Your task to perform on an android device: Add corsair k70 to the cart on amazon Image 0: 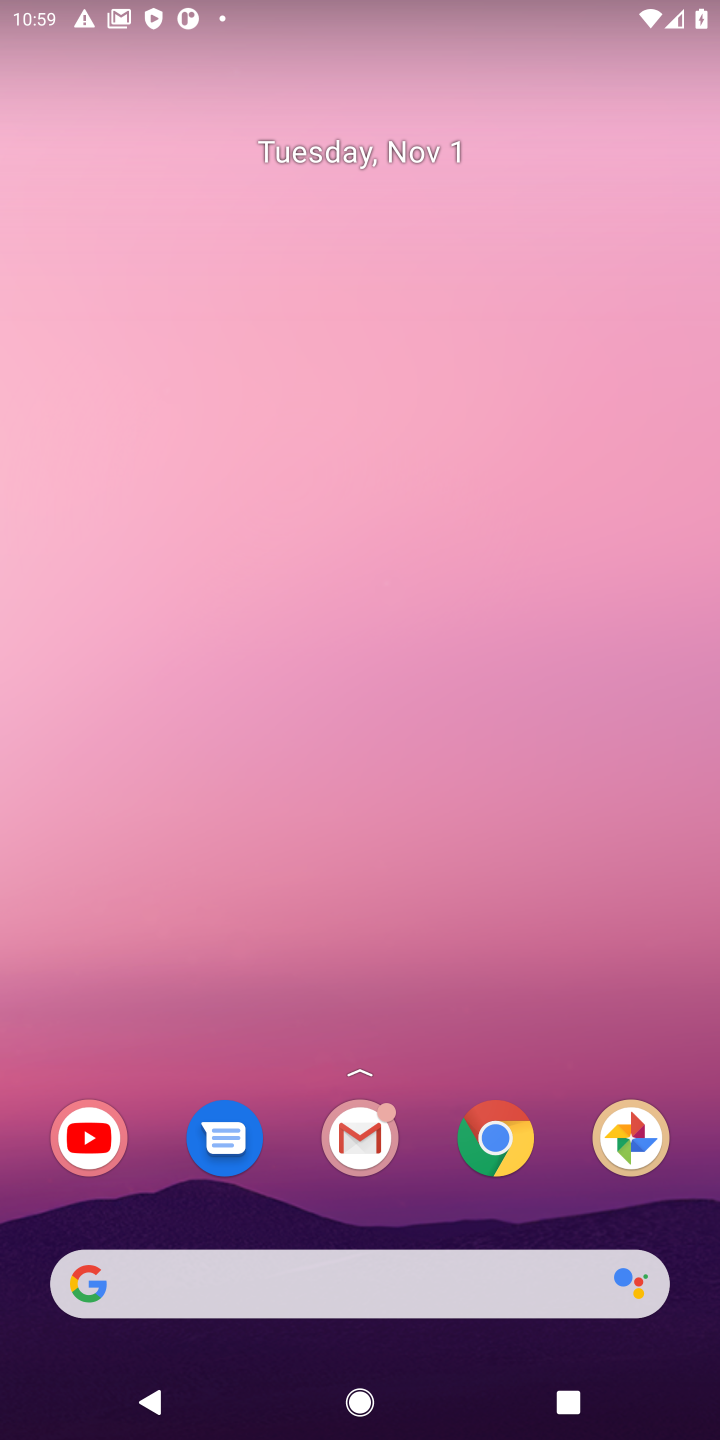
Step 0: click (504, 1146)
Your task to perform on an android device: Add corsair k70 to the cart on amazon Image 1: 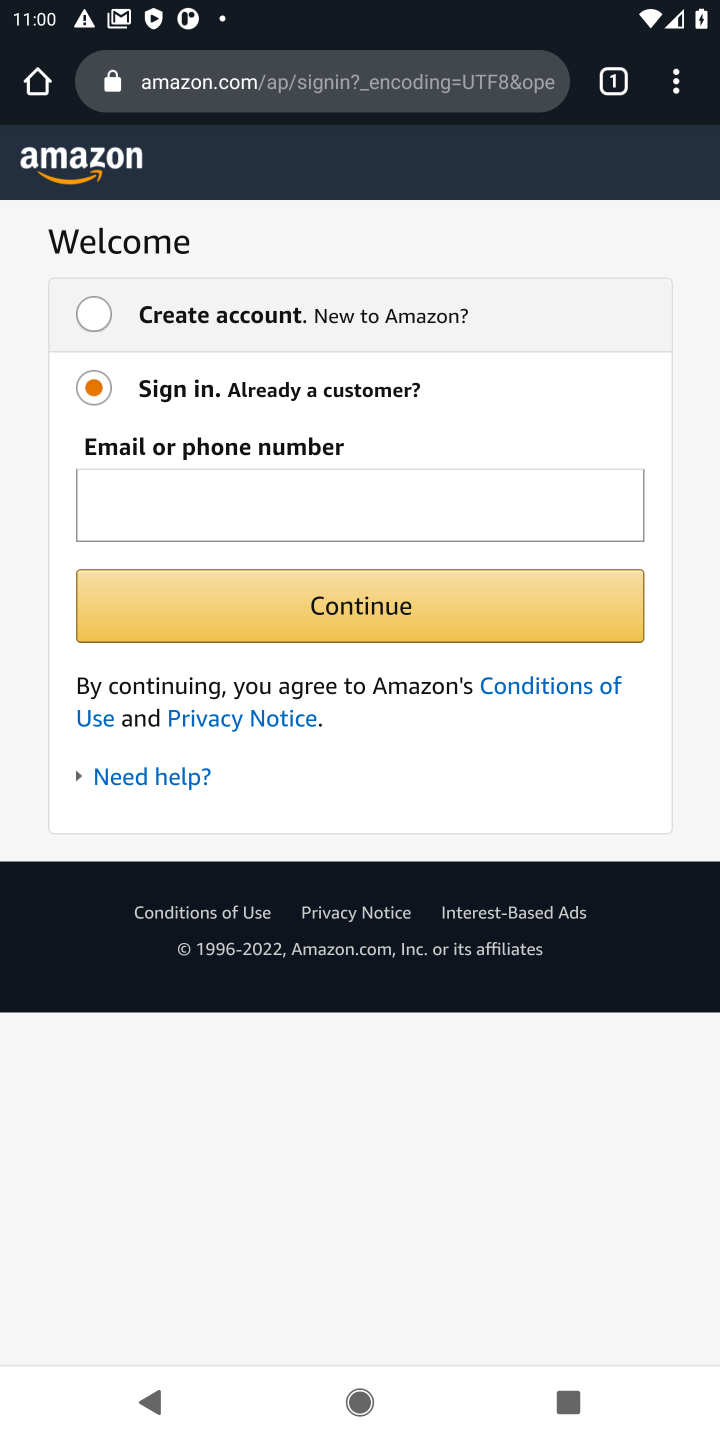
Step 1: click (297, 89)
Your task to perform on an android device: Add corsair k70 to the cart on amazon Image 2: 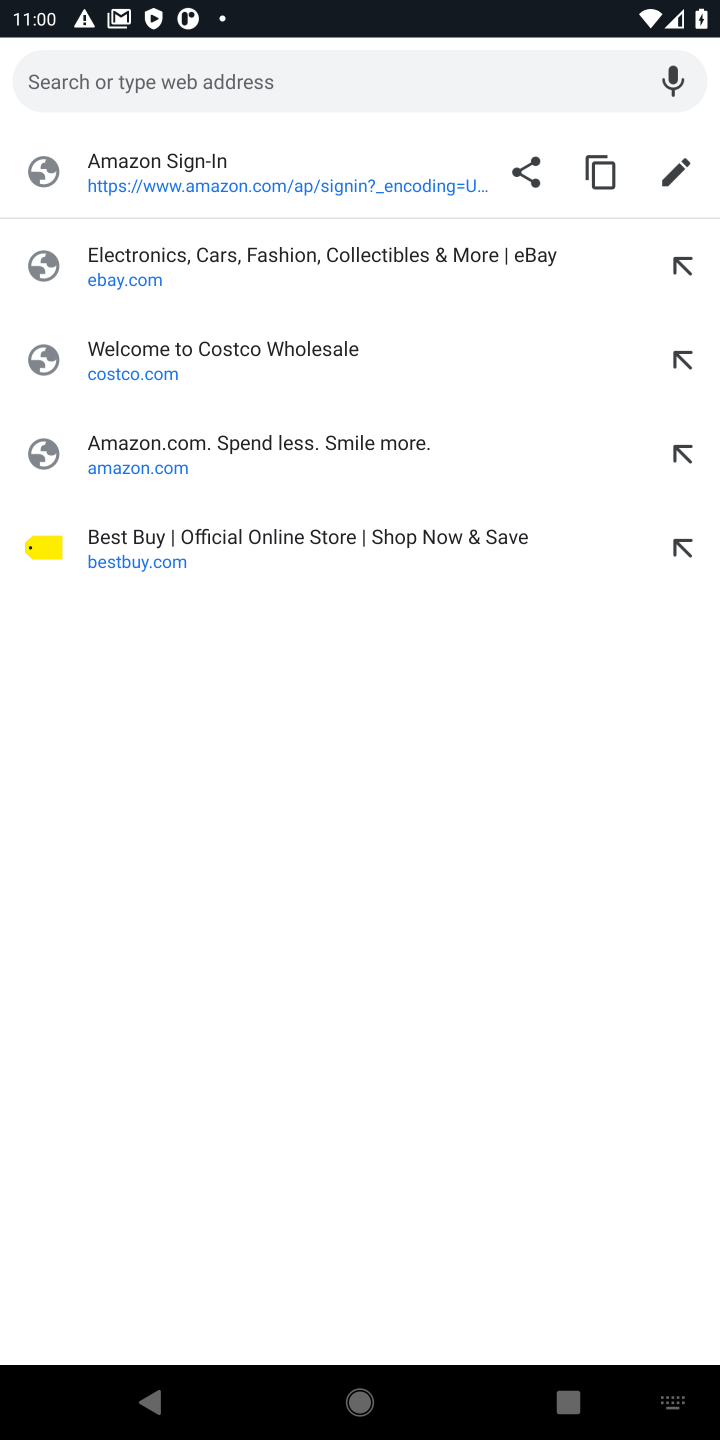
Step 2: click (144, 436)
Your task to perform on an android device: Add corsair k70 to the cart on amazon Image 3: 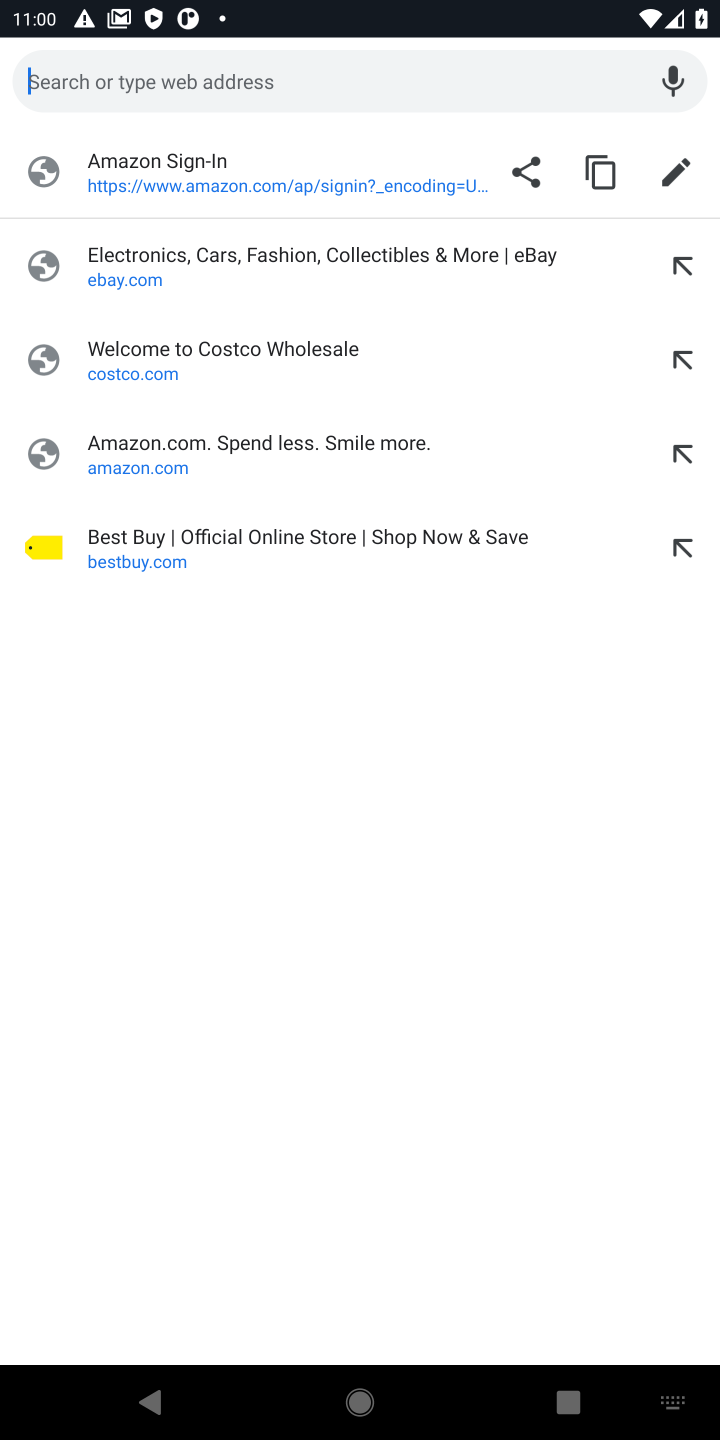
Step 3: click (122, 466)
Your task to perform on an android device: Add corsair k70 to the cart on amazon Image 4: 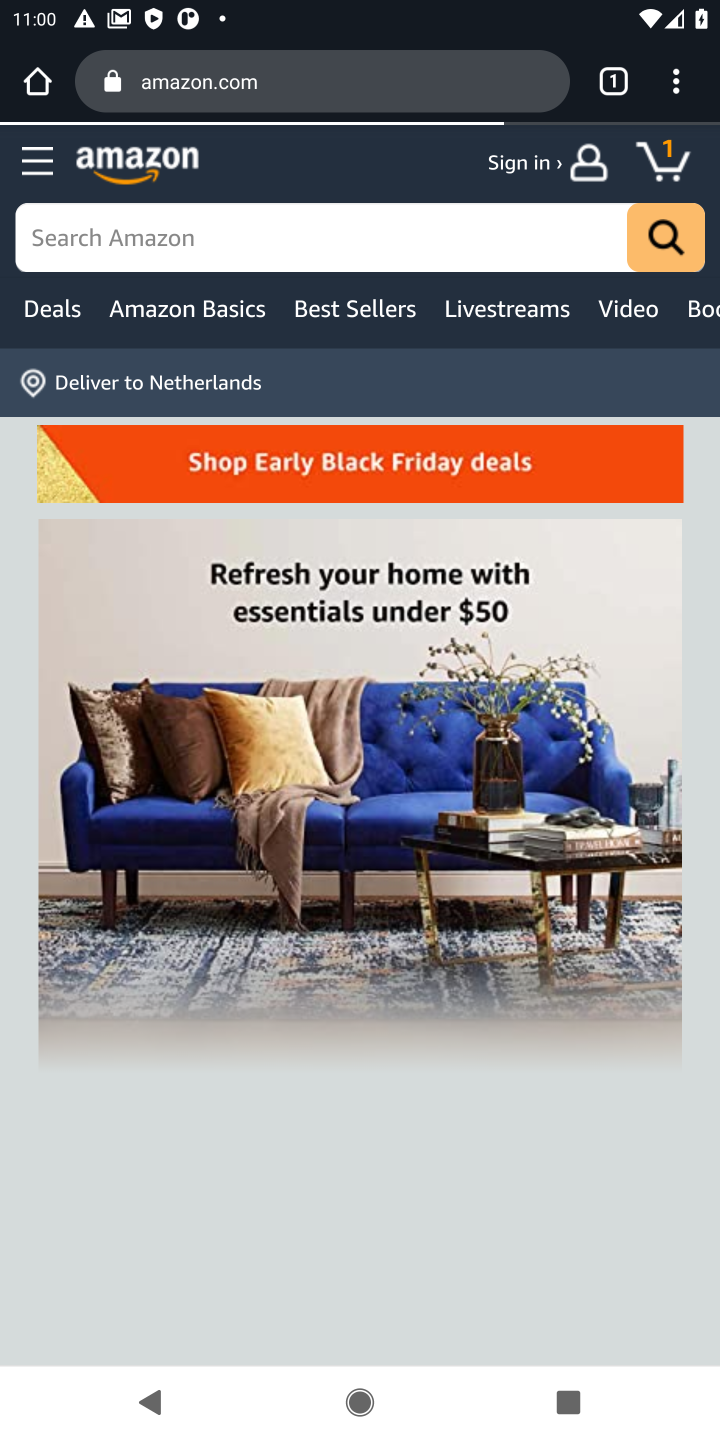
Step 4: click (87, 447)
Your task to perform on an android device: Add corsair k70 to the cart on amazon Image 5: 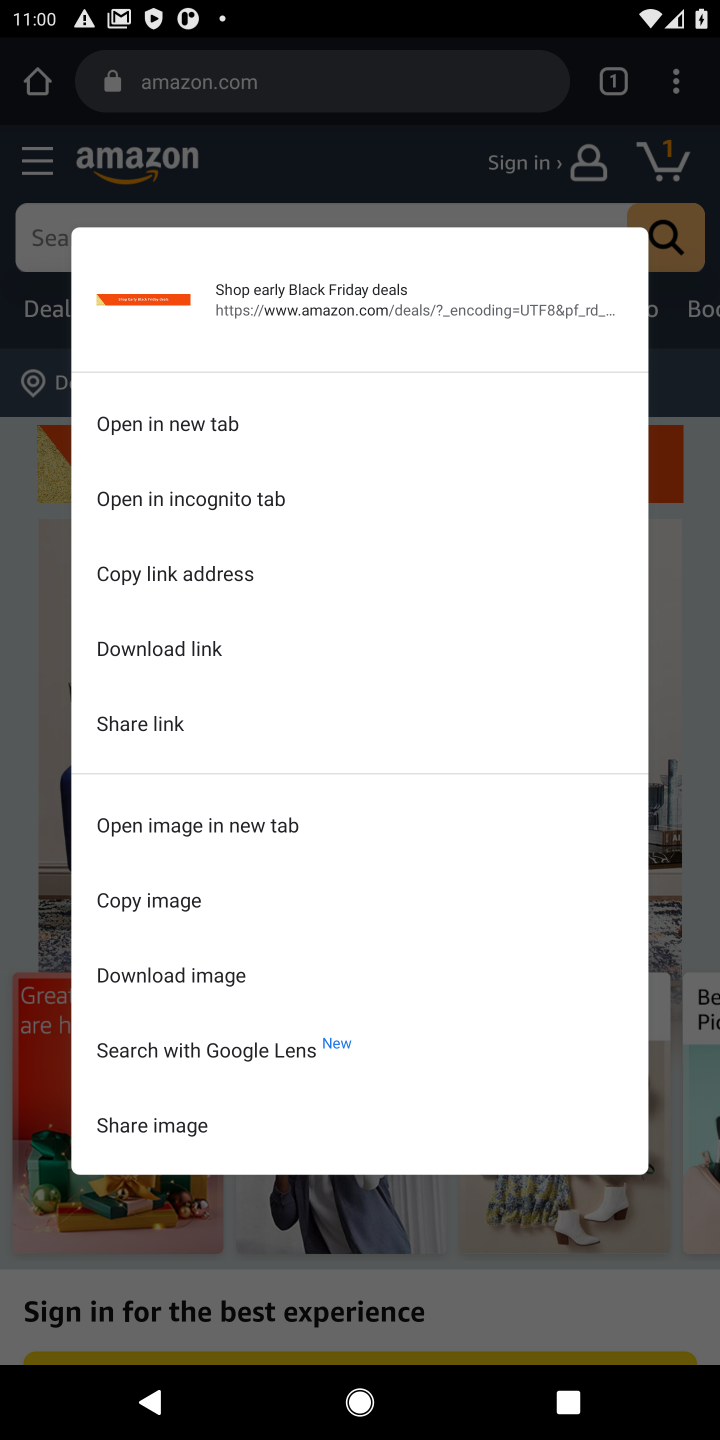
Step 5: click (63, 232)
Your task to perform on an android device: Add corsair k70 to the cart on amazon Image 6: 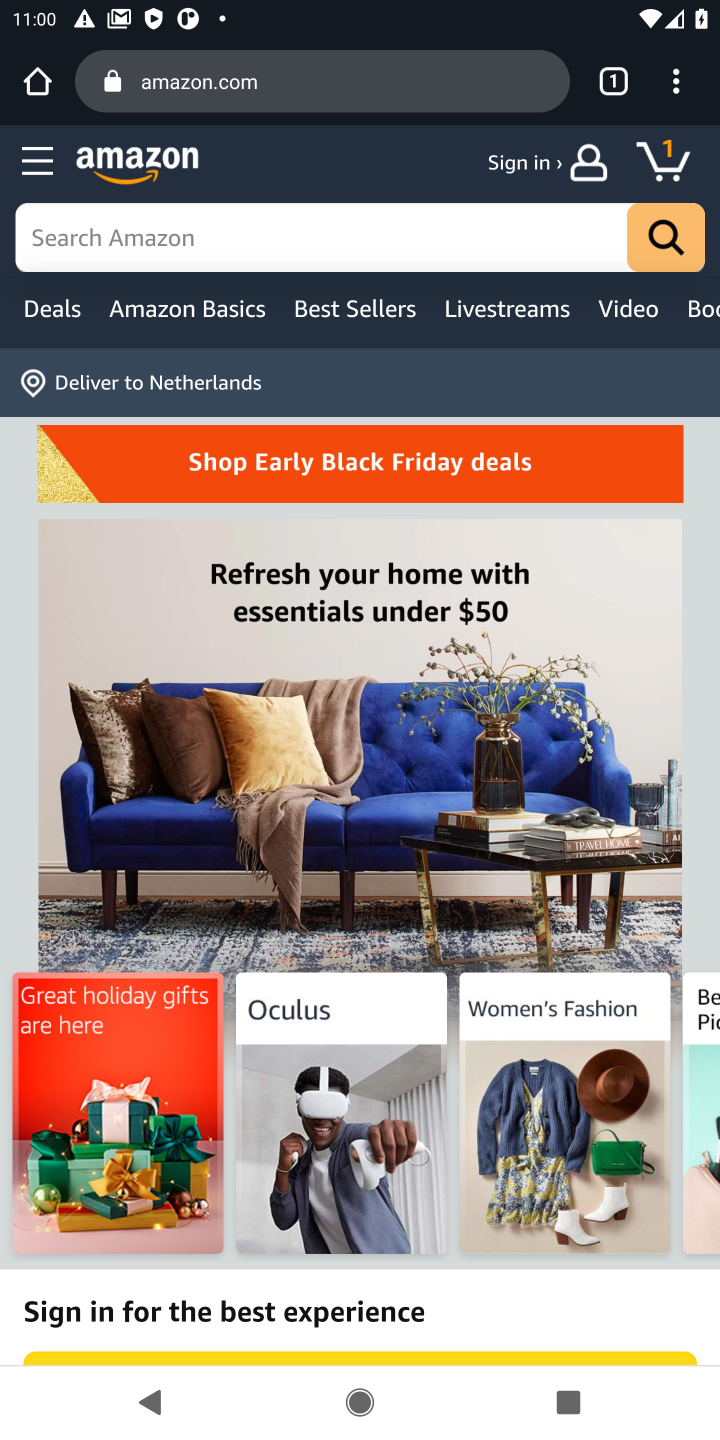
Step 6: click (66, 237)
Your task to perform on an android device: Add corsair k70 to the cart on amazon Image 7: 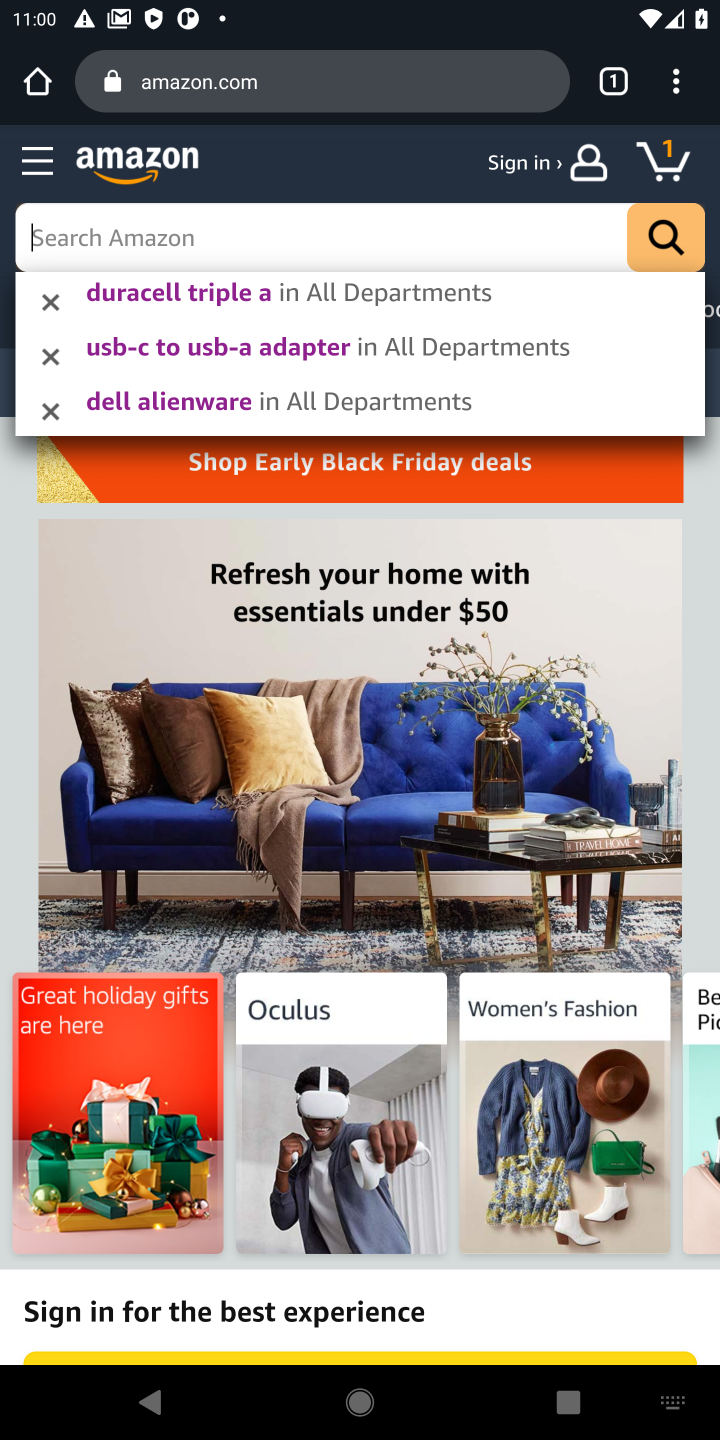
Step 7: type "corsair k70"
Your task to perform on an android device: Add corsair k70 to the cart on amazon Image 8: 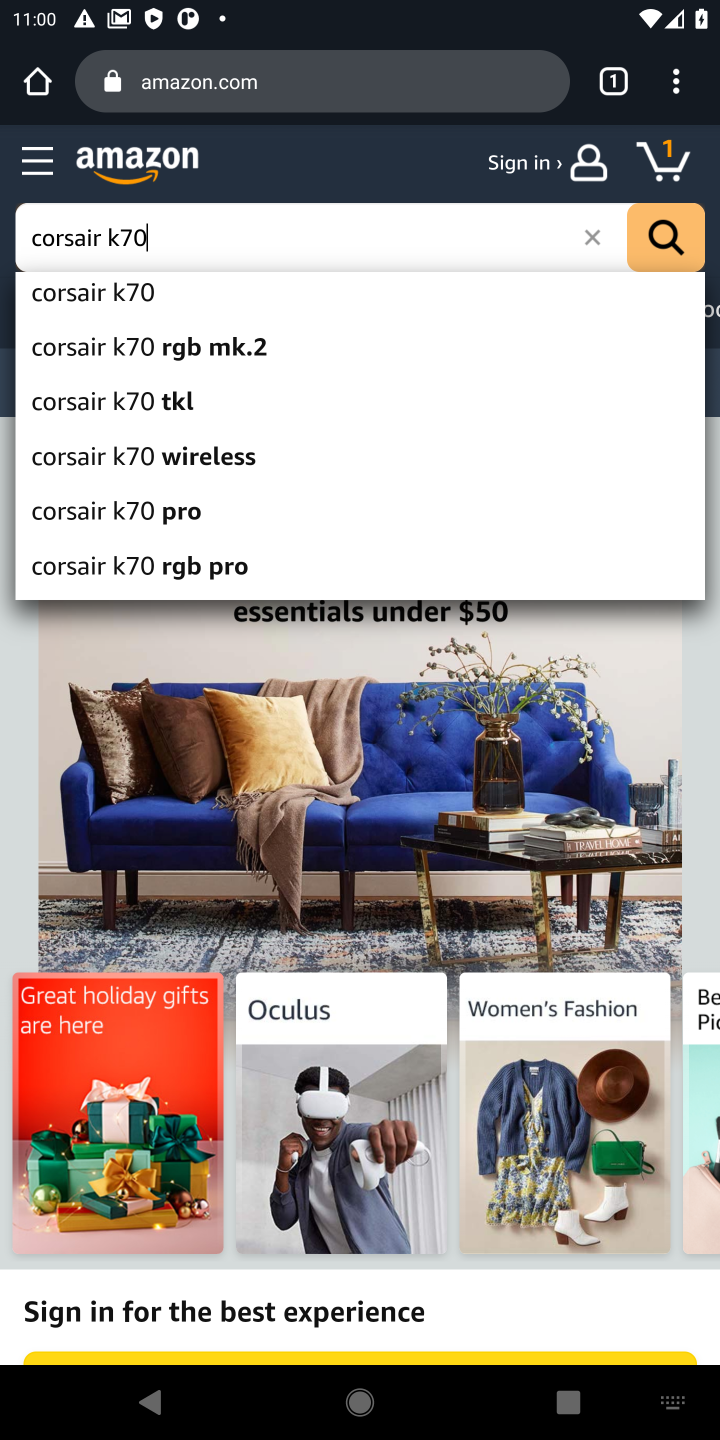
Step 8: click (60, 295)
Your task to perform on an android device: Add corsair k70 to the cart on amazon Image 9: 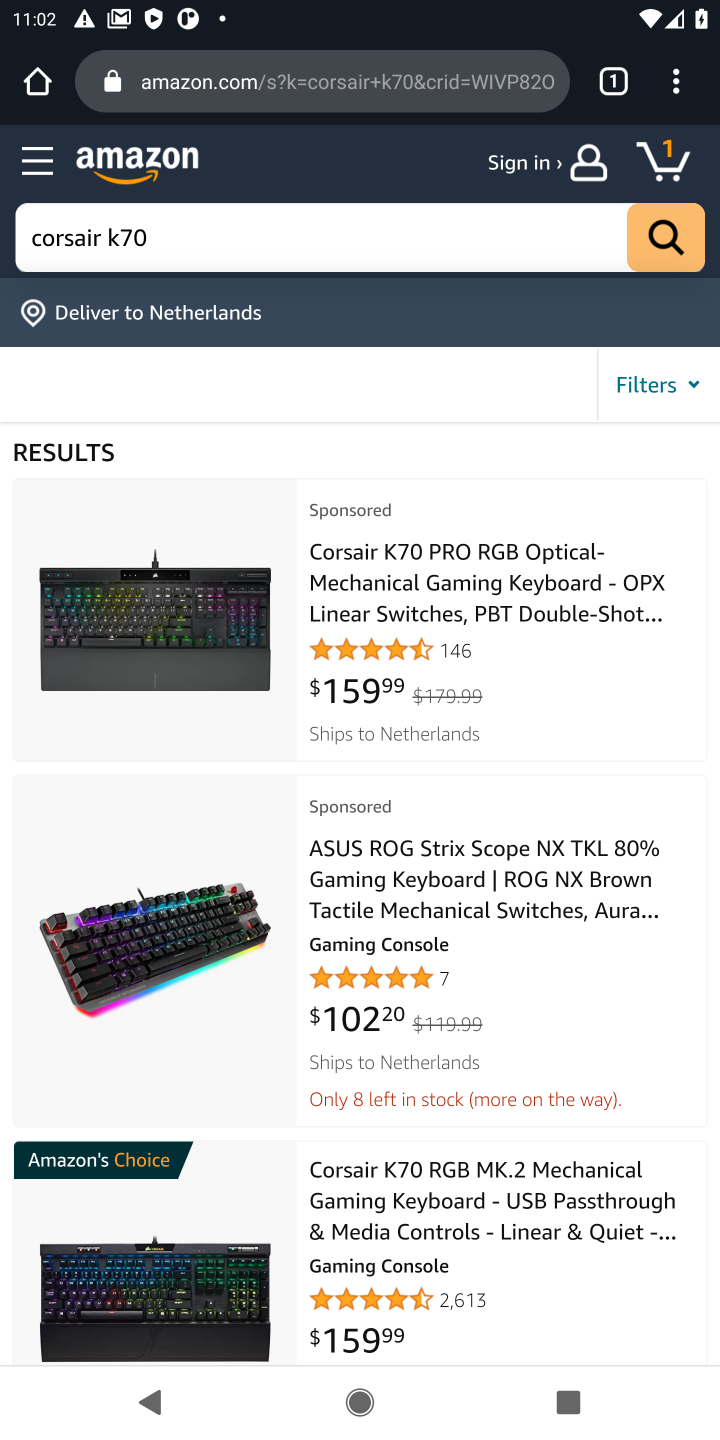
Step 9: click (301, 624)
Your task to perform on an android device: Add corsair k70 to the cart on amazon Image 10: 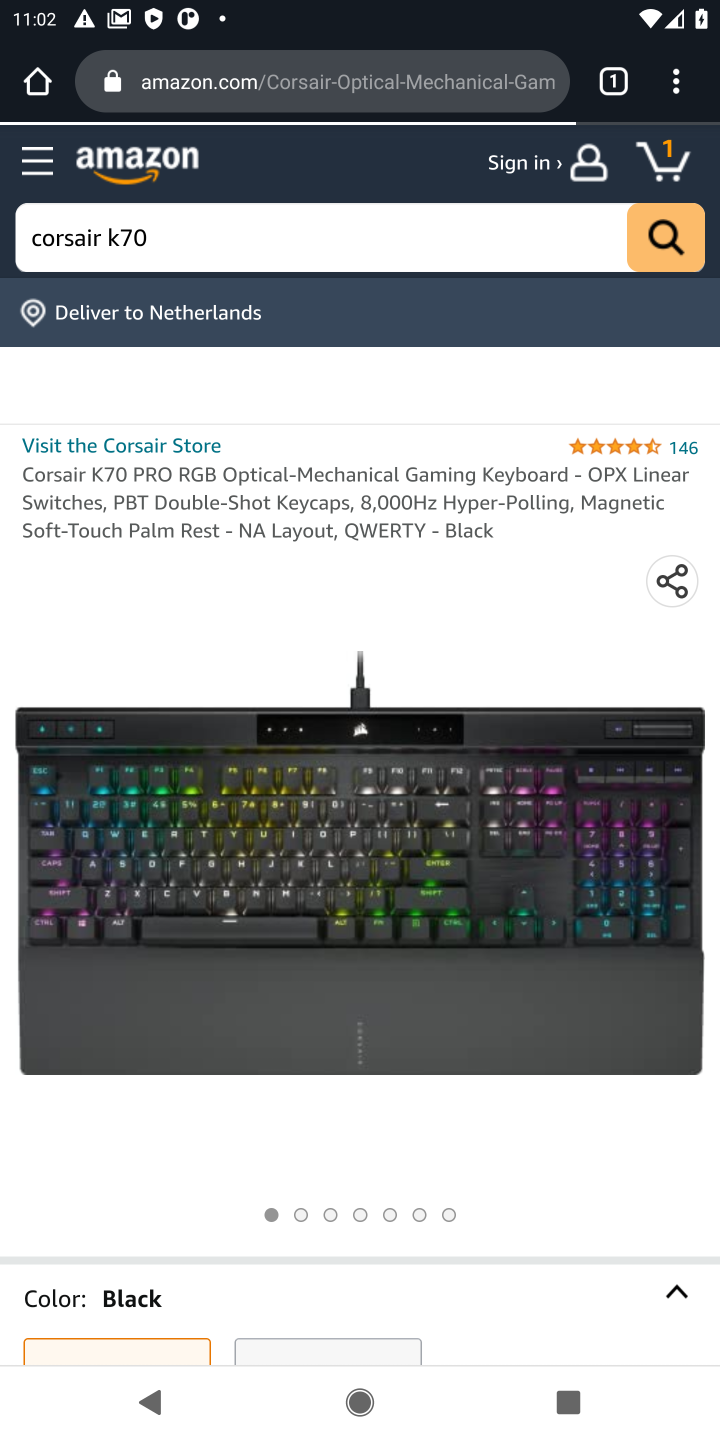
Step 10: drag from (313, 874) to (352, 202)
Your task to perform on an android device: Add corsair k70 to the cart on amazon Image 11: 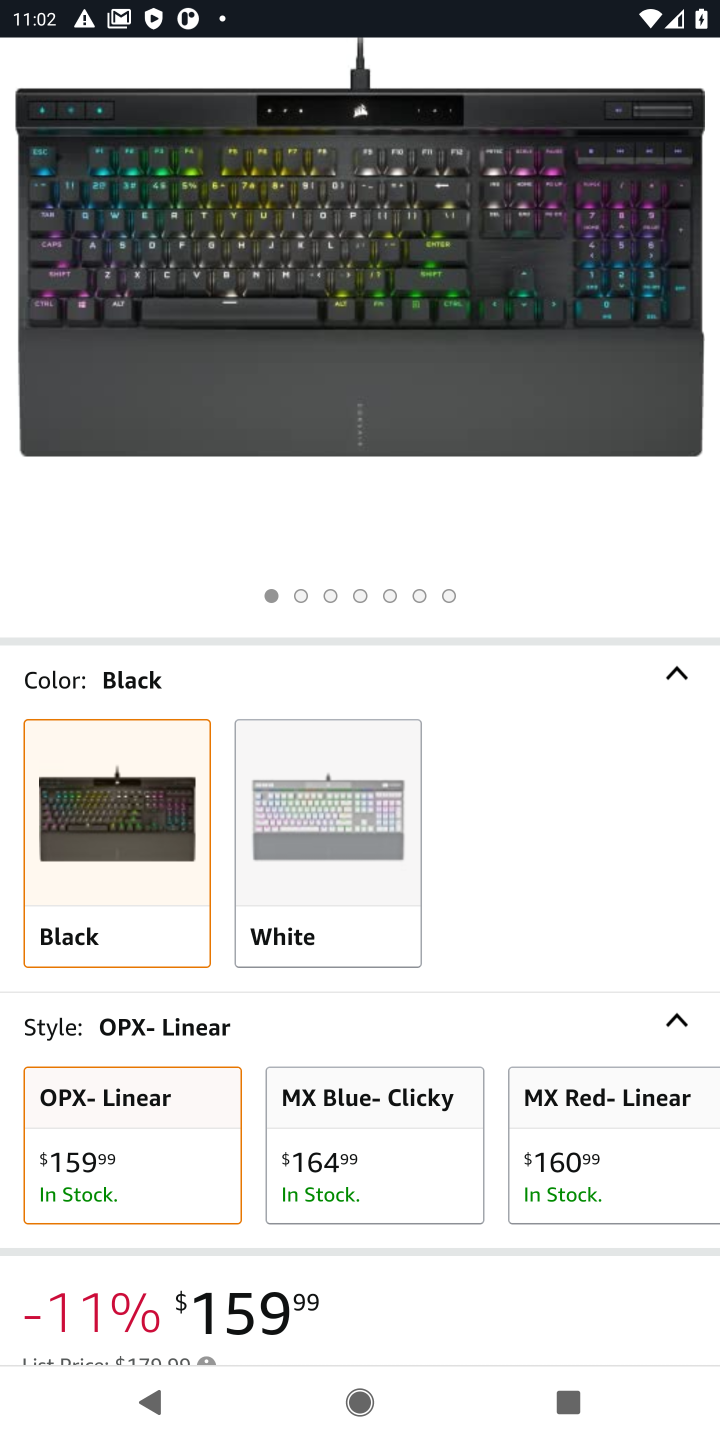
Step 11: drag from (476, 926) to (463, 316)
Your task to perform on an android device: Add corsair k70 to the cart on amazon Image 12: 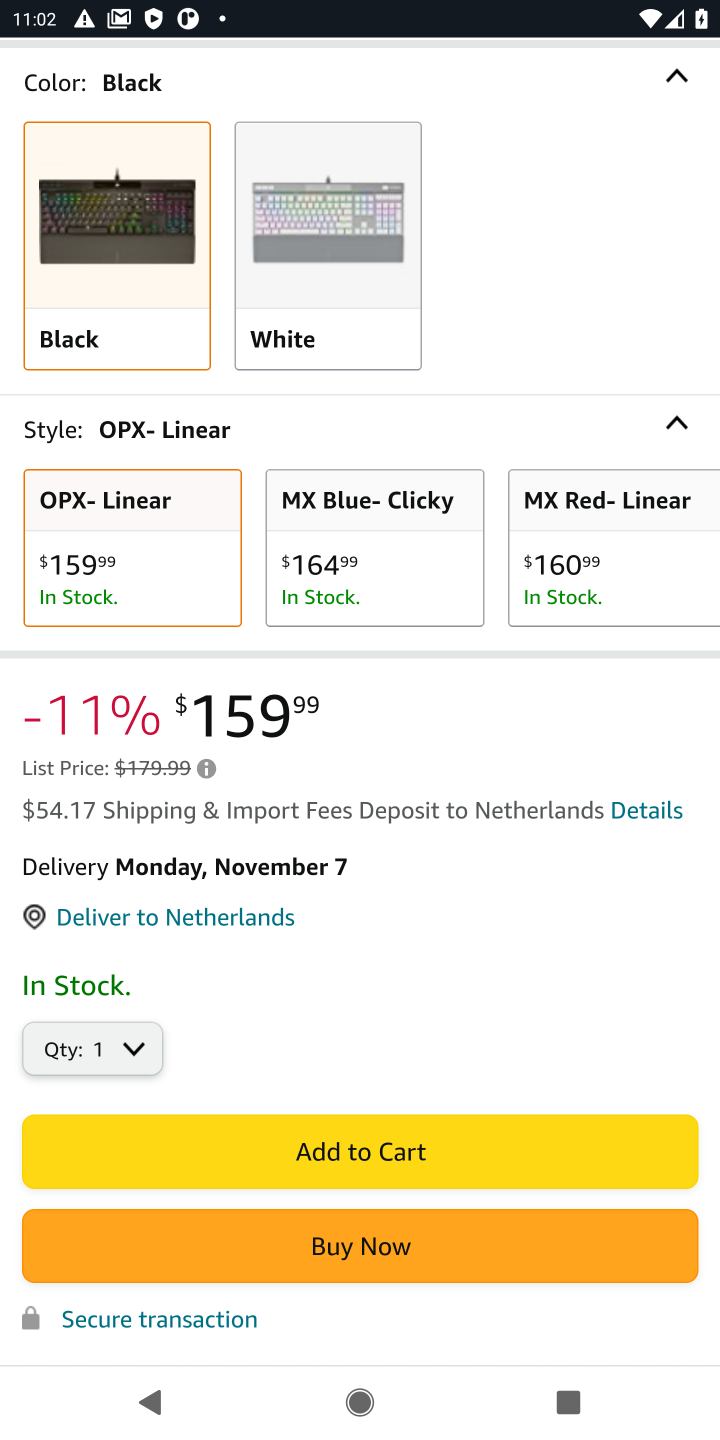
Step 12: click (320, 1157)
Your task to perform on an android device: Add corsair k70 to the cart on amazon Image 13: 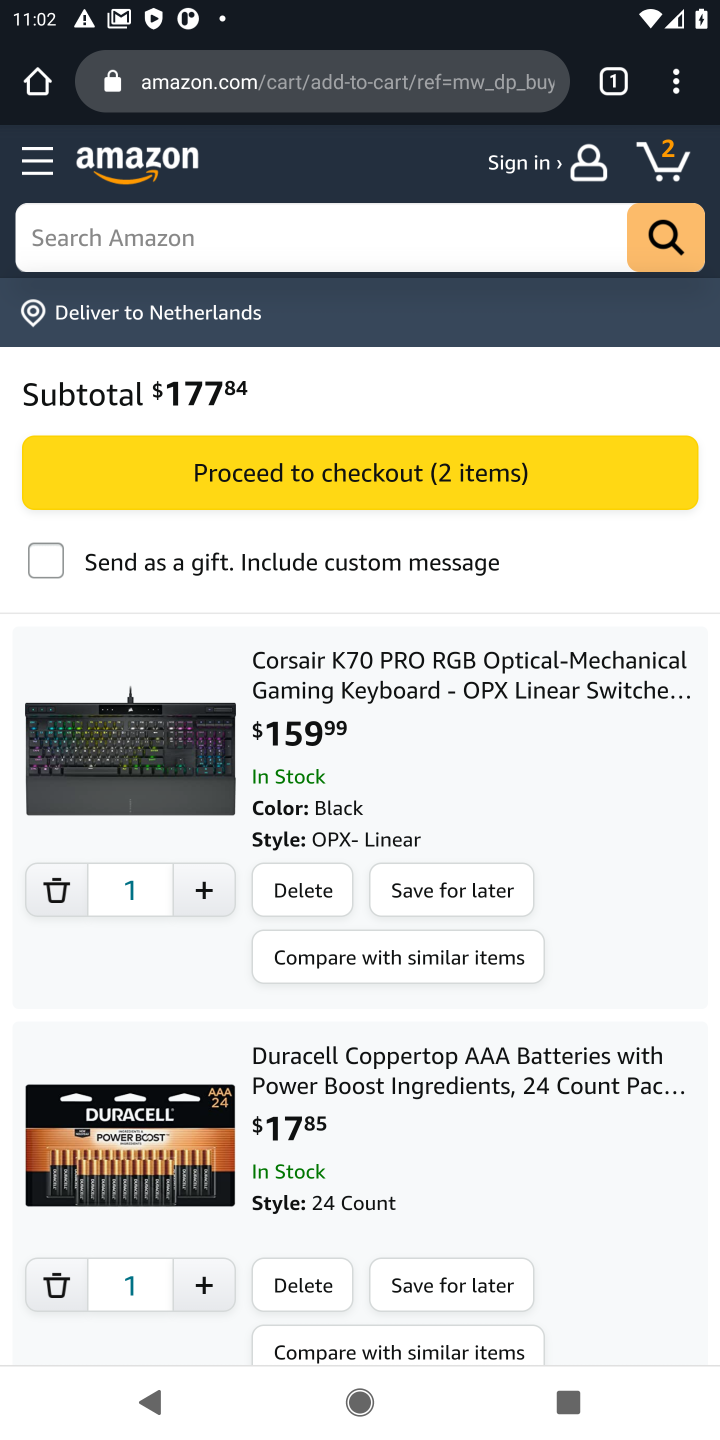
Step 13: task complete